Your task to perform on an android device: Do I have any events tomorrow? Image 0: 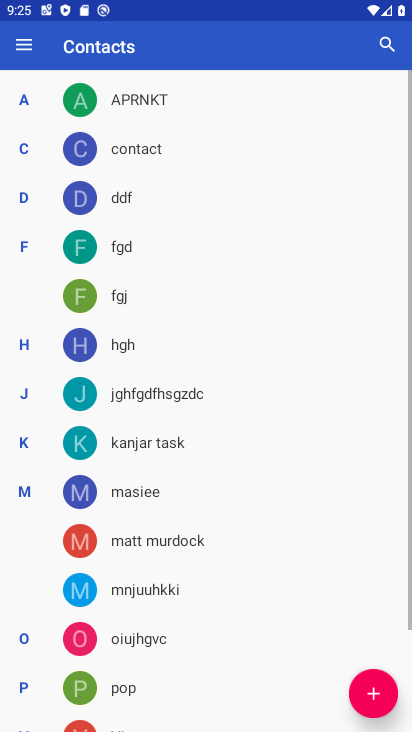
Step 0: press home button
Your task to perform on an android device: Do I have any events tomorrow? Image 1: 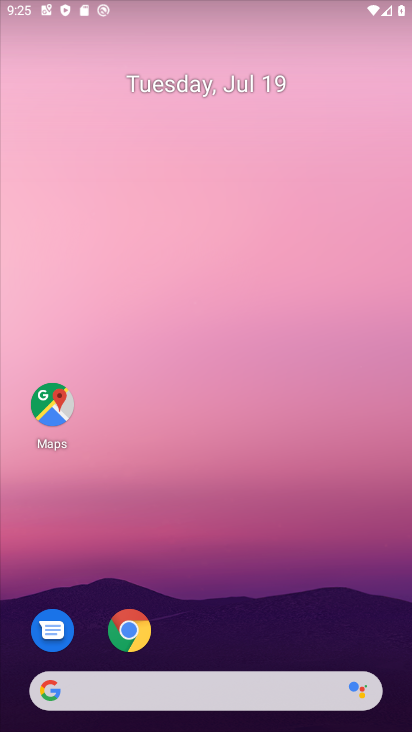
Step 1: drag from (183, 650) to (153, 114)
Your task to perform on an android device: Do I have any events tomorrow? Image 2: 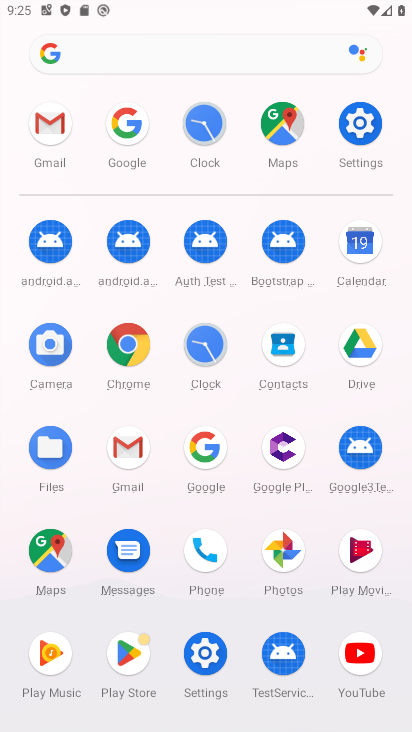
Step 2: click (364, 252)
Your task to perform on an android device: Do I have any events tomorrow? Image 3: 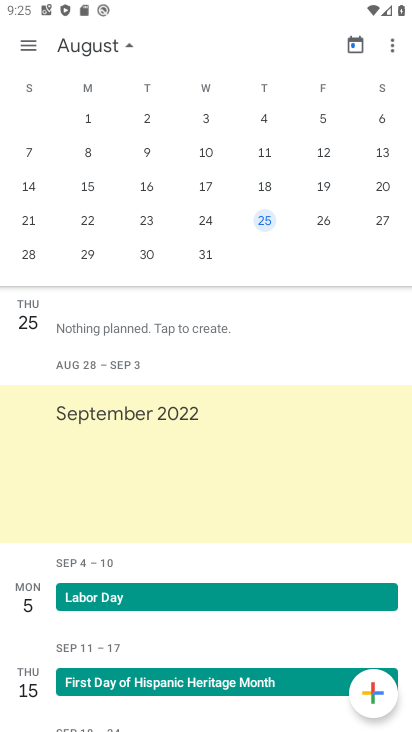
Step 3: drag from (50, 245) to (400, 273)
Your task to perform on an android device: Do I have any events tomorrow? Image 4: 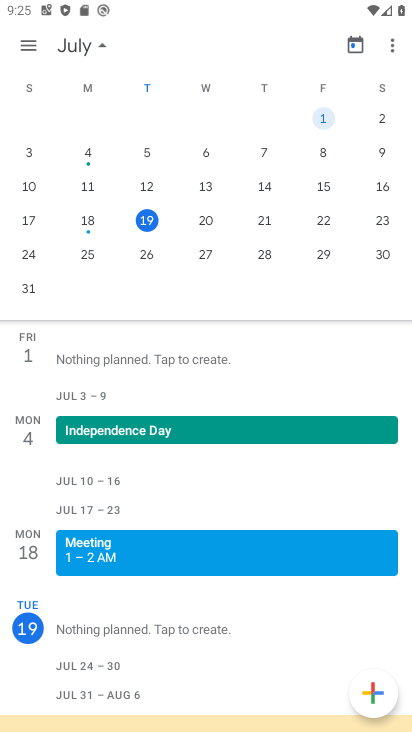
Step 4: drag from (38, 264) to (56, 75)
Your task to perform on an android device: Do I have any events tomorrow? Image 5: 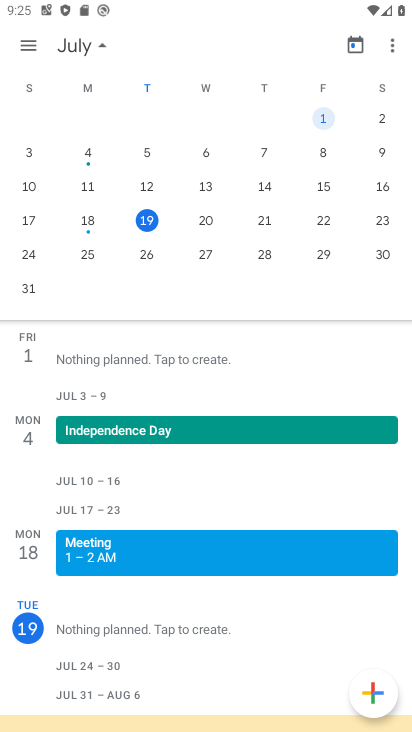
Step 5: click (203, 219)
Your task to perform on an android device: Do I have any events tomorrow? Image 6: 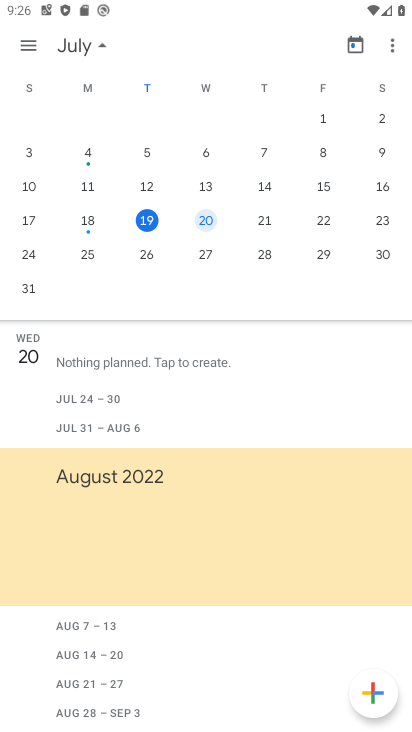
Step 6: task complete